Your task to perform on an android device: Go to calendar. Show me events next week Image 0: 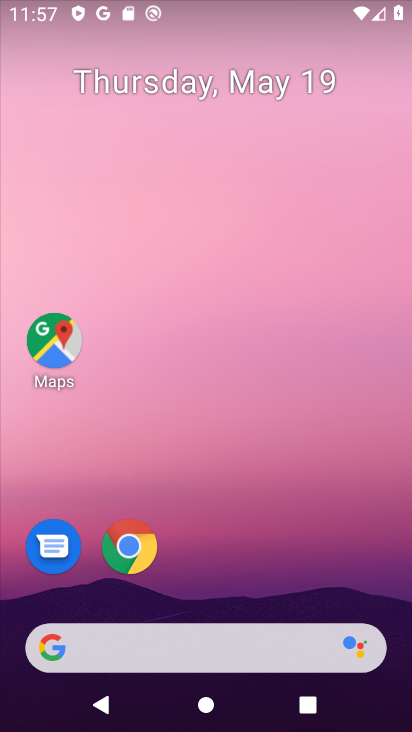
Step 0: drag from (303, 620) to (300, 144)
Your task to perform on an android device: Go to calendar. Show me events next week Image 1: 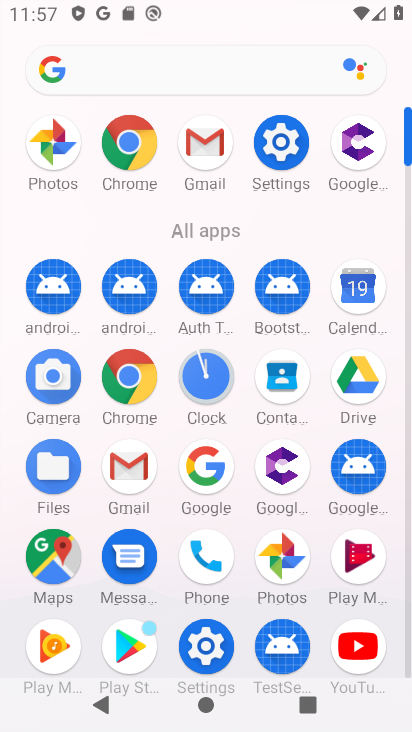
Step 1: click (351, 273)
Your task to perform on an android device: Go to calendar. Show me events next week Image 2: 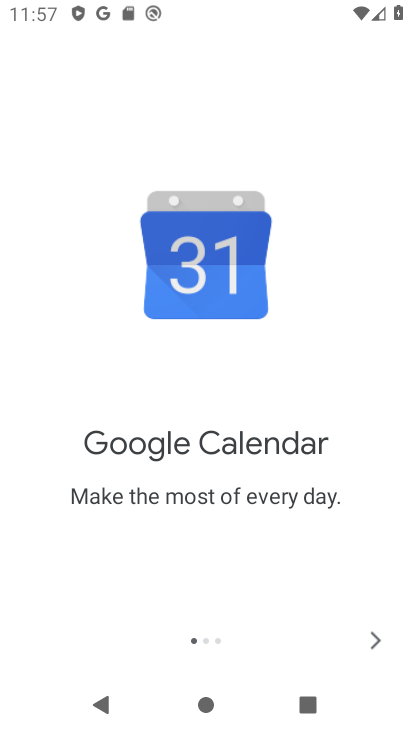
Step 2: click (371, 633)
Your task to perform on an android device: Go to calendar. Show me events next week Image 3: 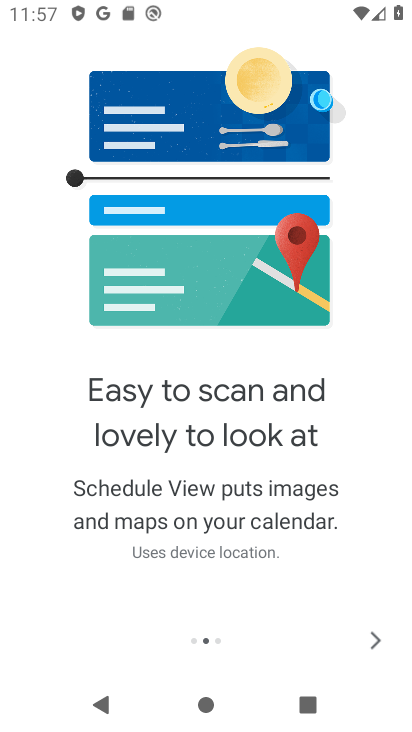
Step 3: click (371, 633)
Your task to perform on an android device: Go to calendar. Show me events next week Image 4: 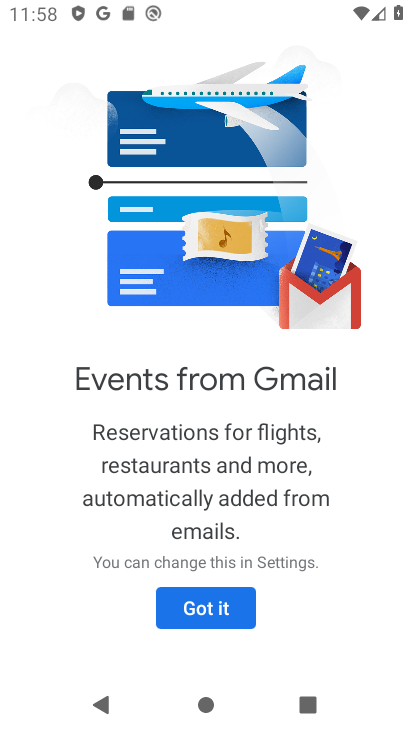
Step 4: click (230, 615)
Your task to perform on an android device: Go to calendar. Show me events next week Image 5: 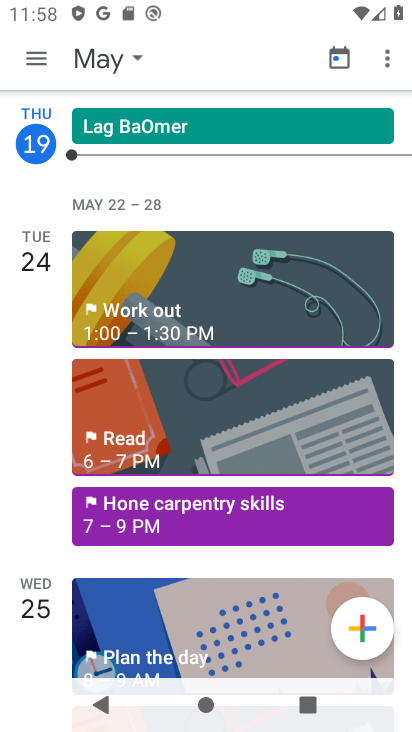
Step 5: click (116, 58)
Your task to perform on an android device: Go to calendar. Show me events next week Image 6: 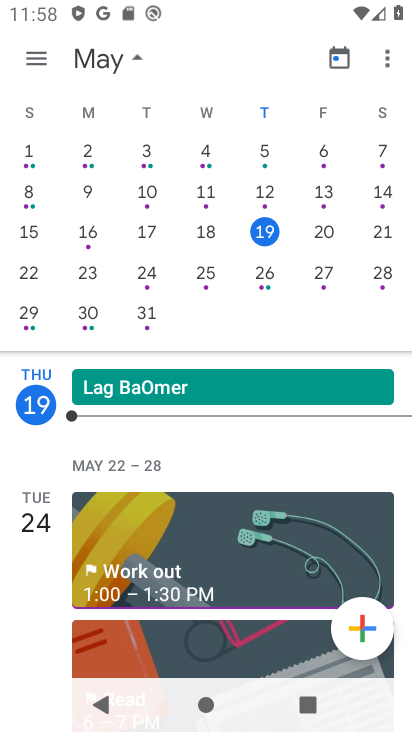
Step 6: drag from (360, 235) to (25, 190)
Your task to perform on an android device: Go to calendar. Show me events next week Image 7: 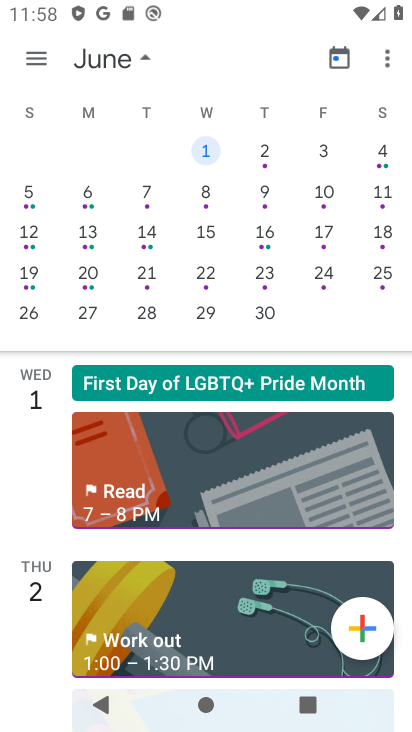
Step 7: drag from (65, 213) to (389, 222)
Your task to perform on an android device: Go to calendar. Show me events next week Image 8: 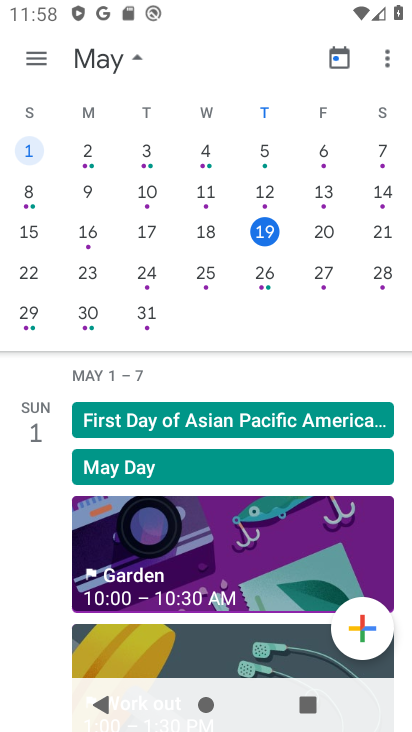
Step 8: click (206, 275)
Your task to perform on an android device: Go to calendar. Show me events next week Image 9: 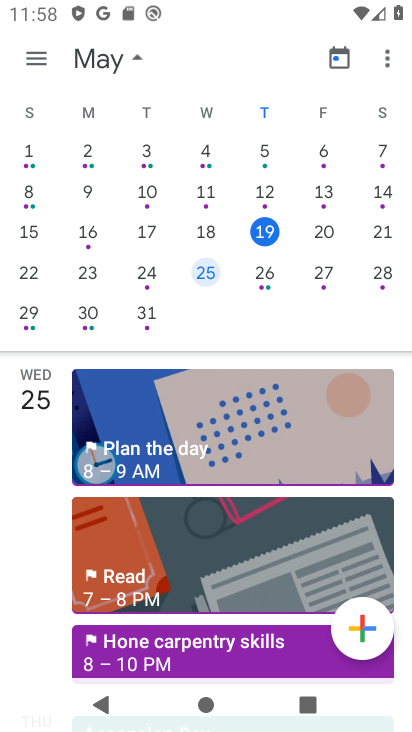
Step 9: click (214, 269)
Your task to perform on an android device: Go to calendar. Show me events next week Image 10: 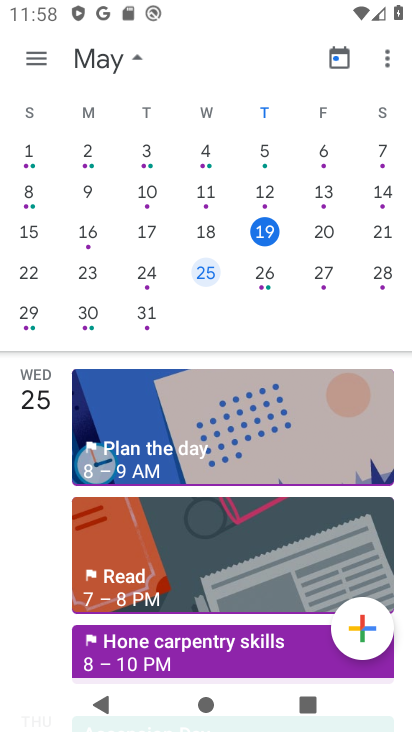
Step 10: click (37, 65)
Your task to perform on an android device: Go to calendar. Show me events next week Image 11: 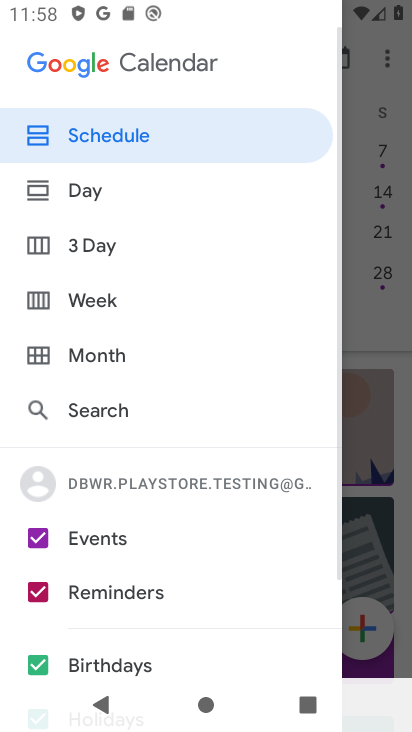
Step 11: click (108, 300)
Your task to perform on an android device: Go to calendar. Show me events next week Image 12: 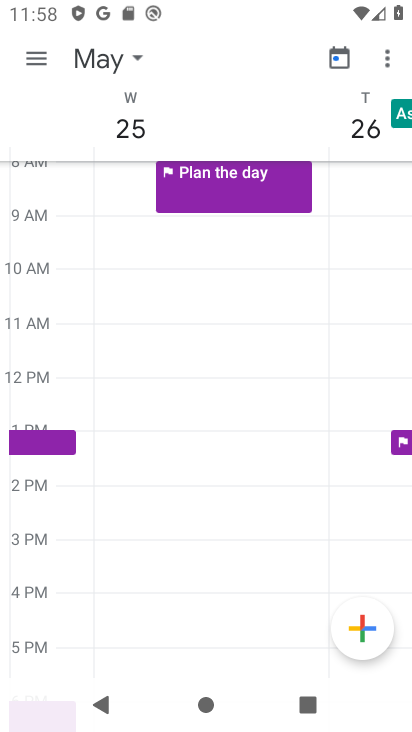
Step 12: task complete